Your task to perform on an android device: make emails show in primary in the gmail app Image 0: 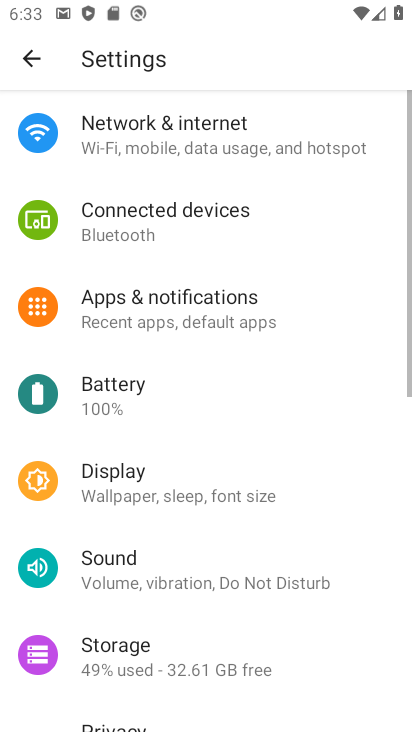
Step 0: press home button
Your task to perform on an android device: make emails show in primary in the gmail app Image 1: 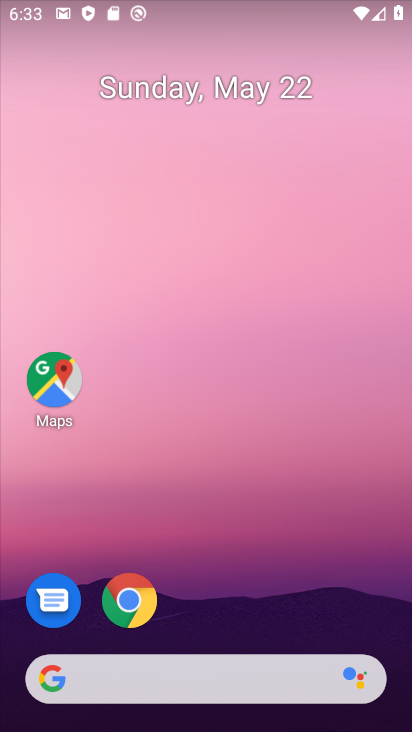
Step 1: drag from (374, 595) to (304, 282)
Your task to perform on an android device: make emails show in primary in the gmail app Image 2: 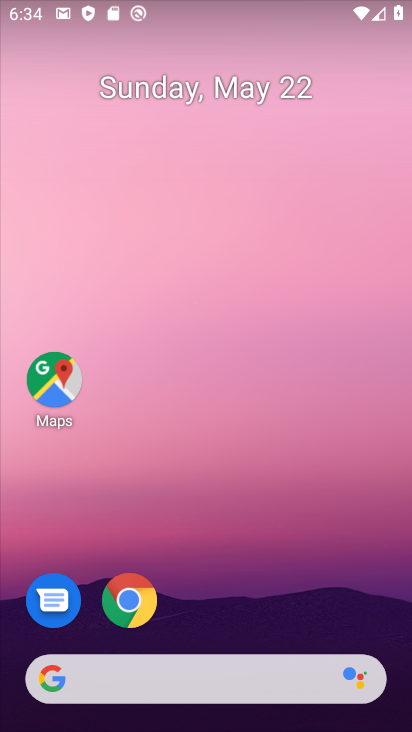
Step 2: drag from (314, 628) to (276, 282)
Your task to perform on an android device: make emails show in primary in the gmail app Image 3: 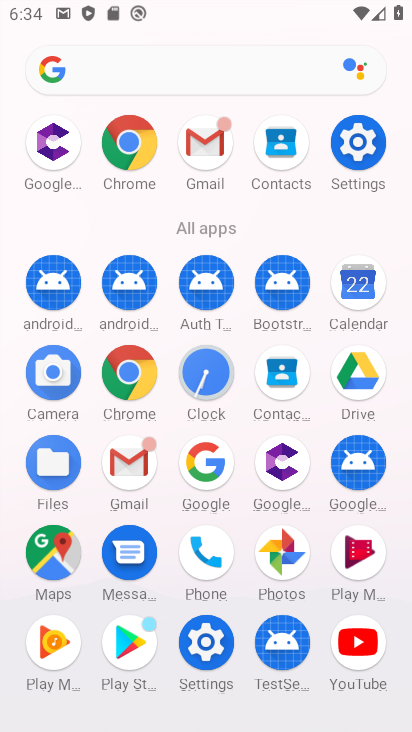
Step 3: click (133, 472)
Your task to perform on an android device: make emails show in primary in the gmail app Image 4: 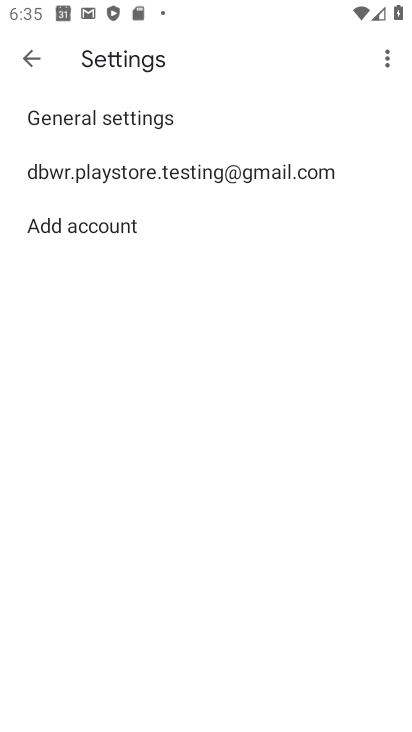
Step 4: task complete